Your task to perform on an android device: find photos in the google photos app Image 0: 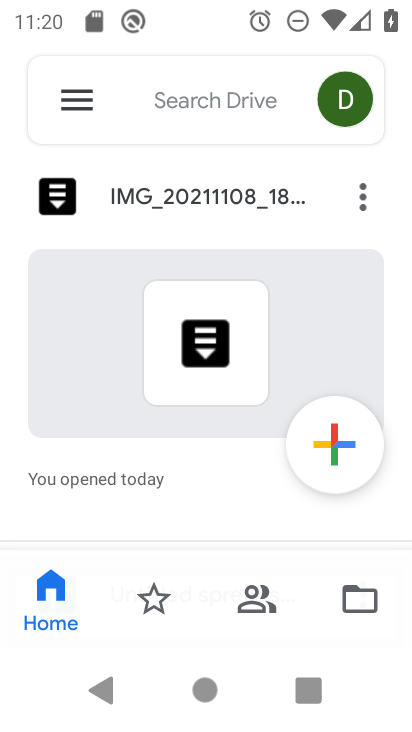
Step 0: press home button
Your task to perform on an android device: find photos in the google photos app Image 1: 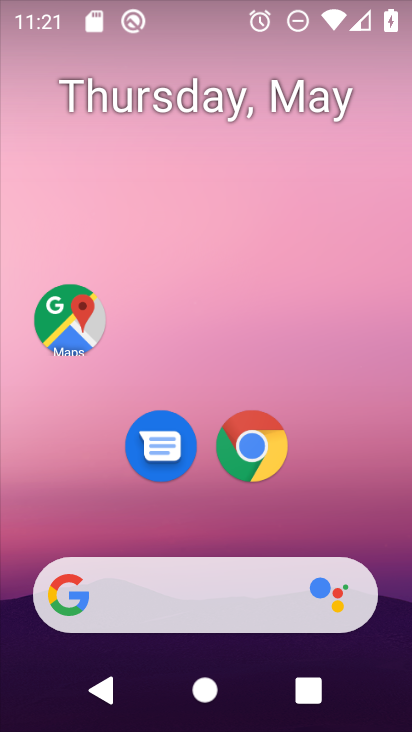
Step 1: drag from (250, 643) to (211, 171)
Your task to perform on an android device: find photos in the google photos app Image 2: 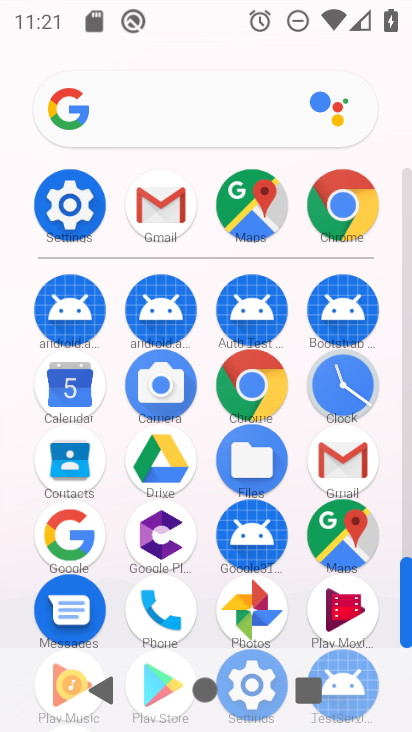
Step 2: click (239, 603)
Your task to perform on an android device: find photos in the google photos app Image 3: 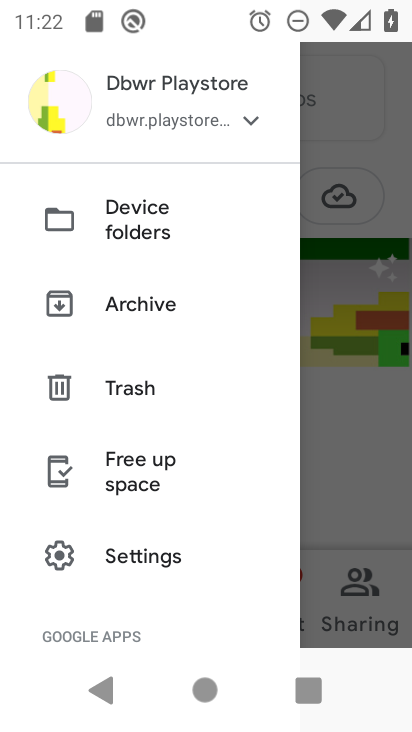
Step 3: click (358, 566)
Your task to perform on an android device: find photos in the google photos app Image 4: 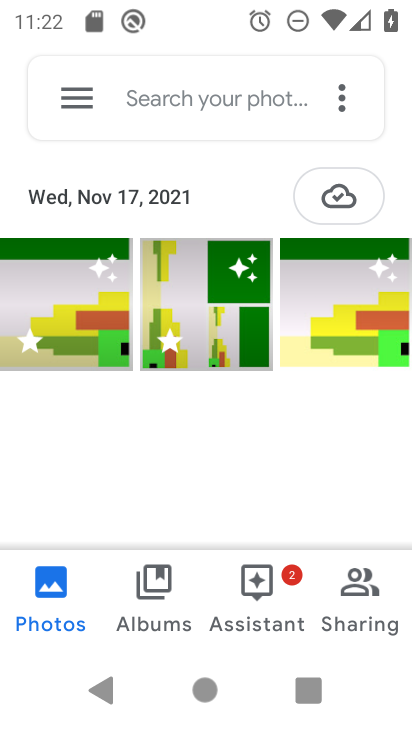
Step 4: task complete